Your task to perform on an android device: What's the weather going to be this weekend? Image 0: 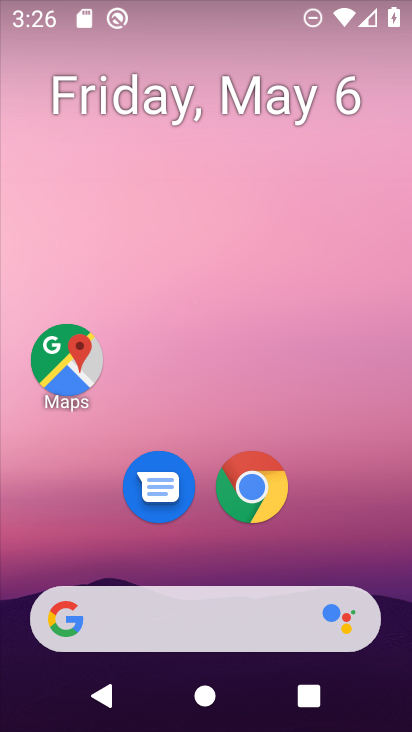
Step 0: drag from (341, 558) to (287, 57)
Your task to perform on an android device: What's the weather going to be this weekend? Image 1: 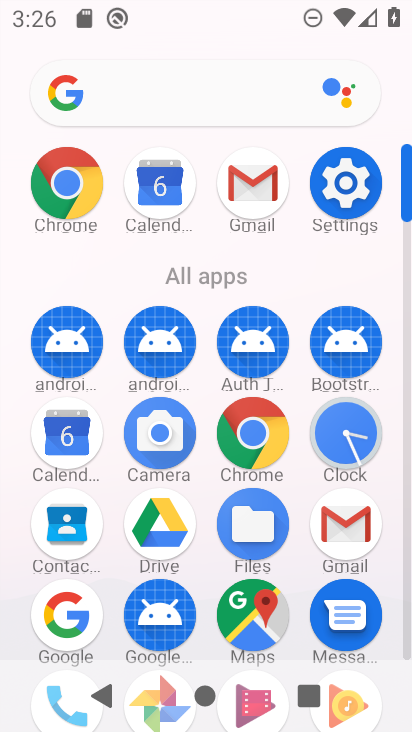
Step 1: click (166, 93)
Your task to perform on an android device: What's the weather going to be this weekend? Image 2: 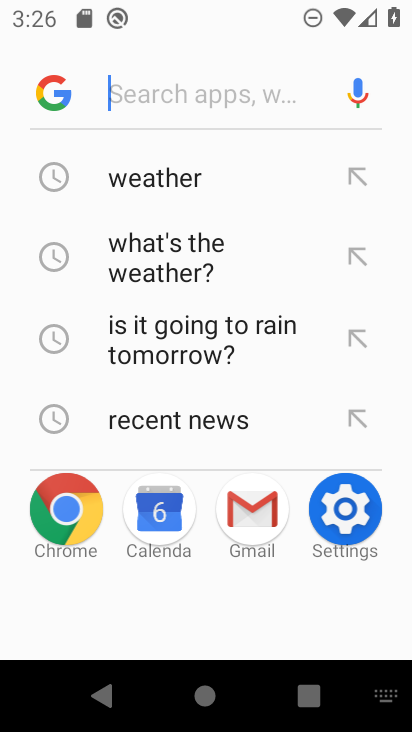
Step 2: type "what's the weather going to be this weekend "
Your task to perform on an android device: What's the weather going to be this weekend? Image 3: 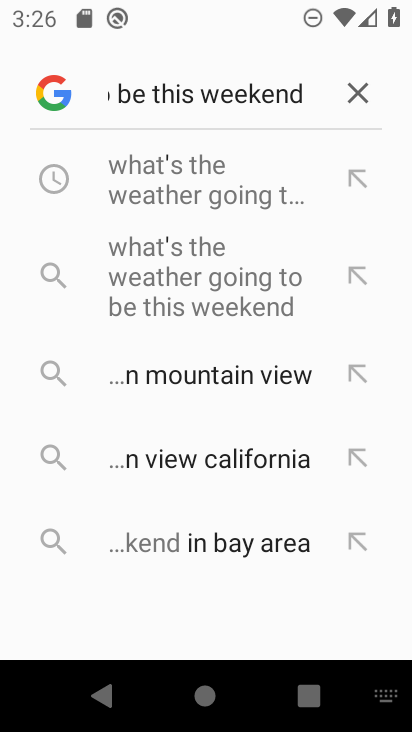
Step 3: click (172, 168)
Your task to perform on an android device: What's the weather going to be this weekend? Image 4: 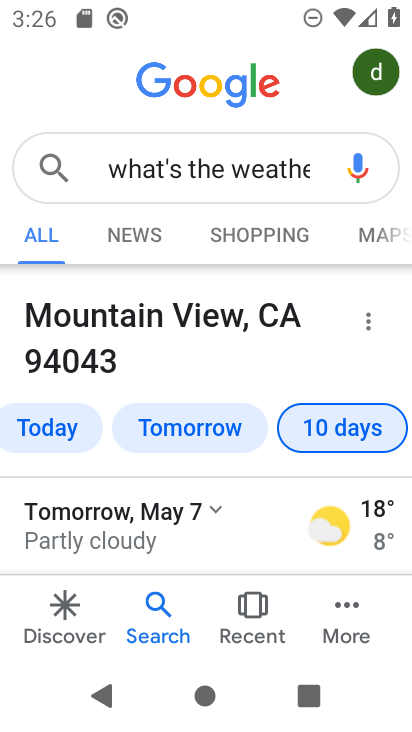
Step 4: task complete